Your task to perform on an android device: make emails show in primary in the gmail app Image 0: 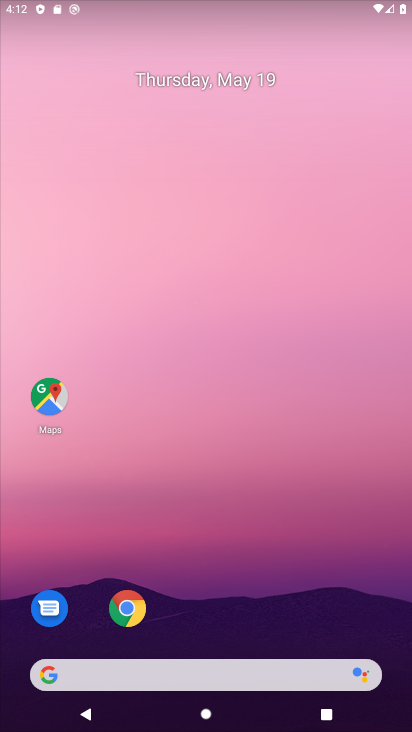
Step 0: click (117, 609)
Your task to perform on an android device: make emails show in primary in the gmail app Image 1: 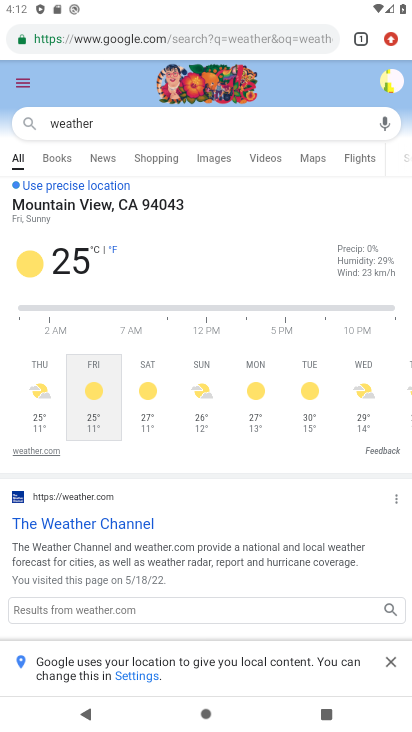
Step 1: press home button
Your task to perform on an android device: make emails show in primary in the gmail app Image 2: 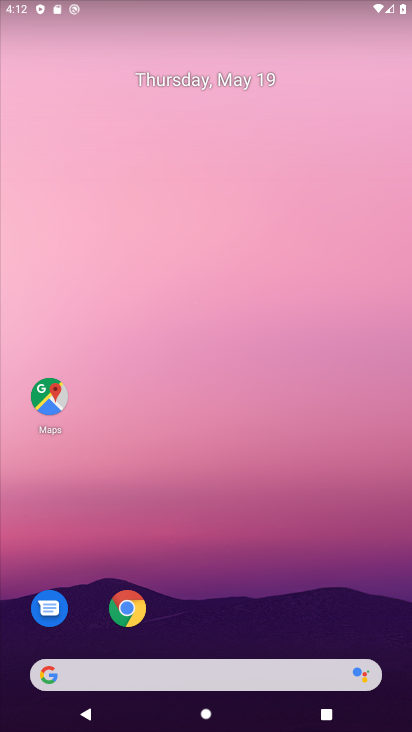
Step 2: drag from (274, 588) to (295, 95)
Your task to perform on an android device: make emails show in primary in the gmail app Image 3: 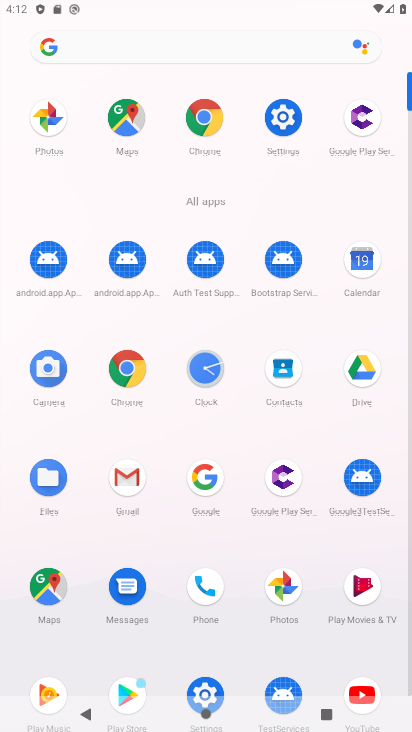
Step 3: click (134, 474)
Your task to perform on an android device: make emails show in primary in the gmail app Image 4: 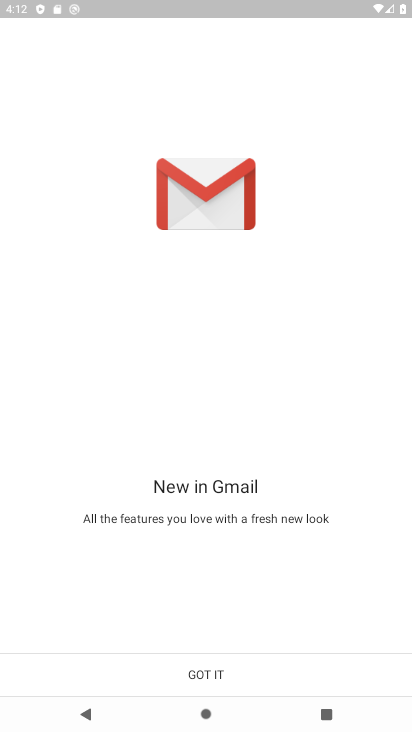
Step 4: click (216, 668)
Your task to perform on an android device: make emails show in primary in the gmail app Image 5: 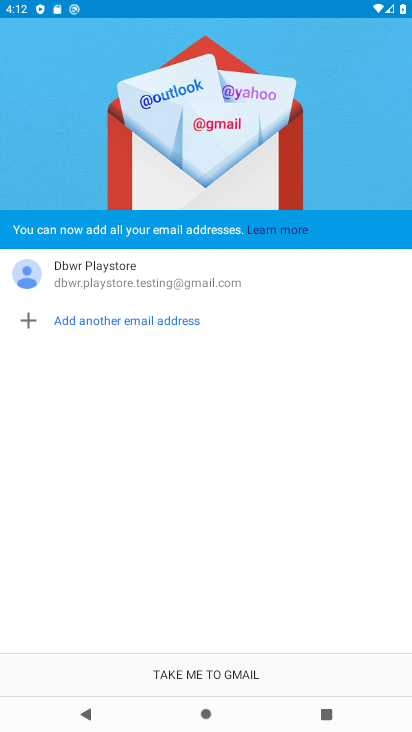
Step 5: click (216, 666)
Your task to perform on an android device: make emails show in primary in the gmail app Image 6: 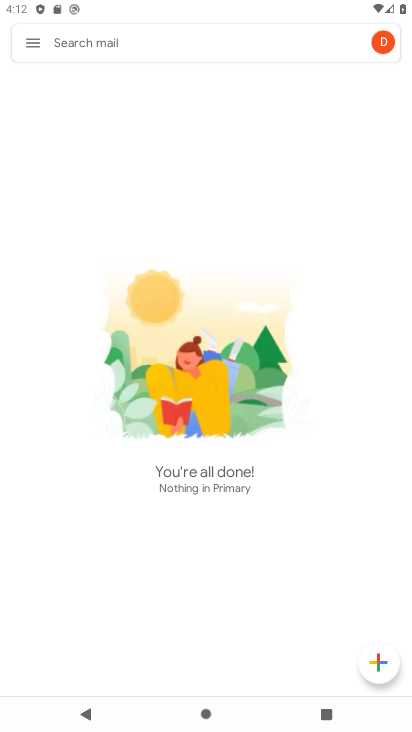
Step 6: click (30, 45)
Your task to perform on an android device: make emails show in primary in the gmail app Image 7: 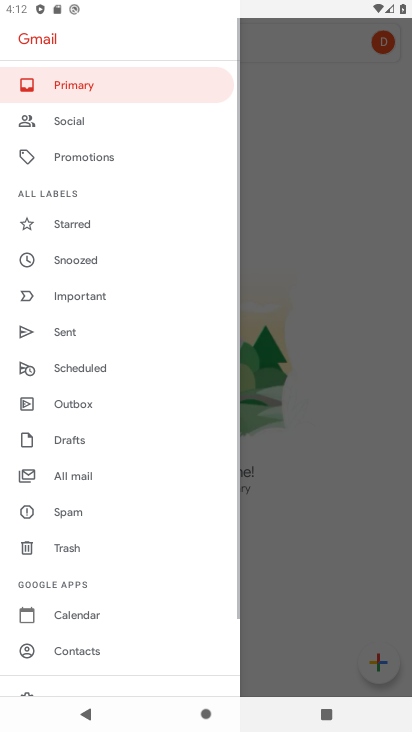
Step 7: drag from (83, 631) to (160, 139)
Your task to perform on an android device: make emails show in primary in the gmail app Image 8: 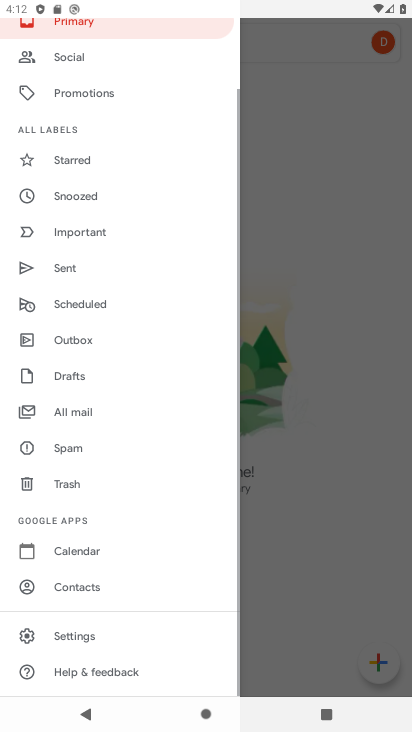
Step 8: click (81, 648)
Your task to perform on an android device: make emails show in primary in the gmail app Image 9: 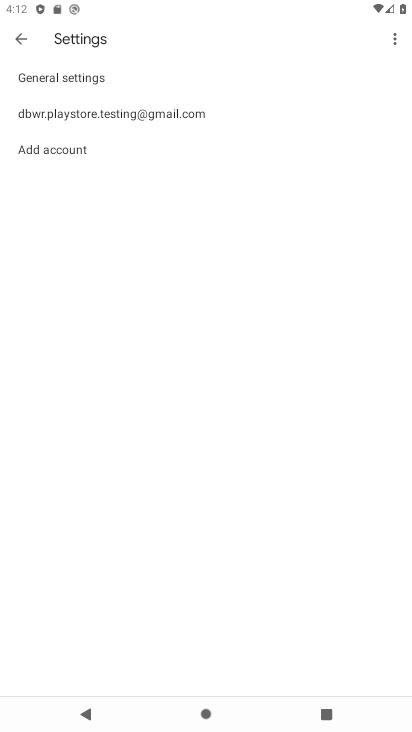
Step 9: click (51, 105)
Your task to perform on an android device: make emails show in primary in the gmail app Image 10: 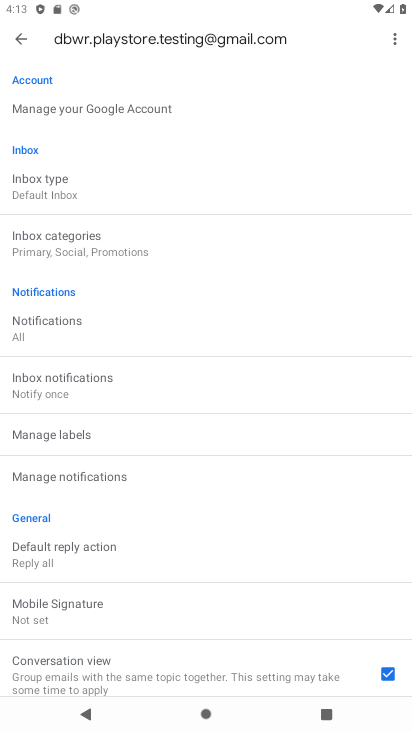
Step 10: click (72, 256)
Your task to perform on an android device: make emails show in primary in the gmail app Image 11: 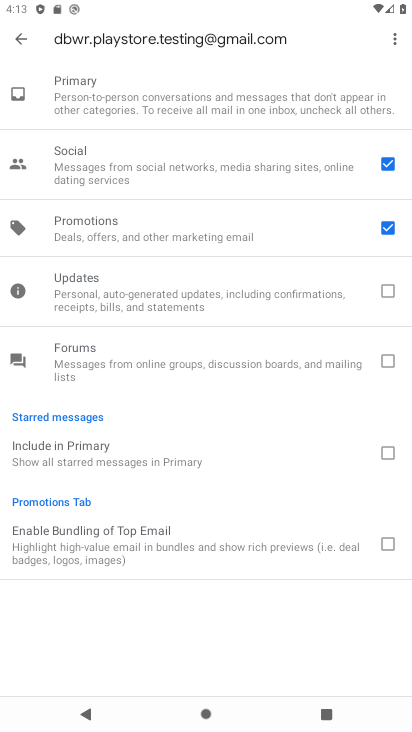
Step 11: task complete